Your task to perform on an android device: Go to settings Image 0: 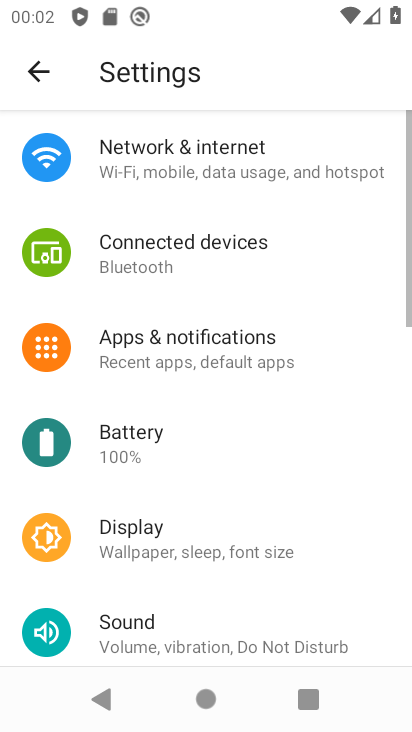
Step 0: press home button
Your task to perform on an android device: Go to settings Image 1: 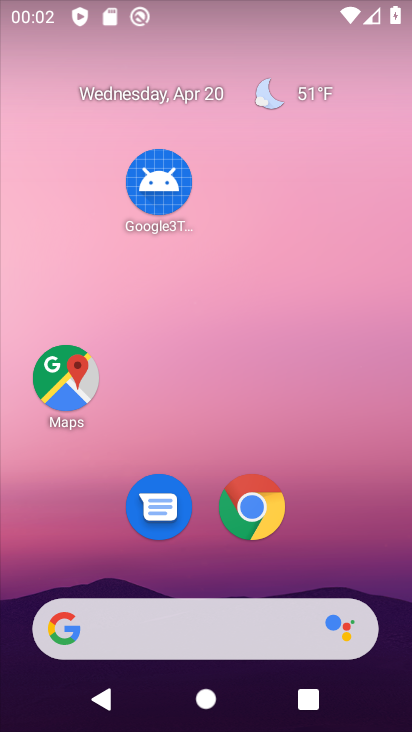
Step 1: drag from (263, 573) to (363, 12)
Your task to perform on an android device: Go to settings Image 2: 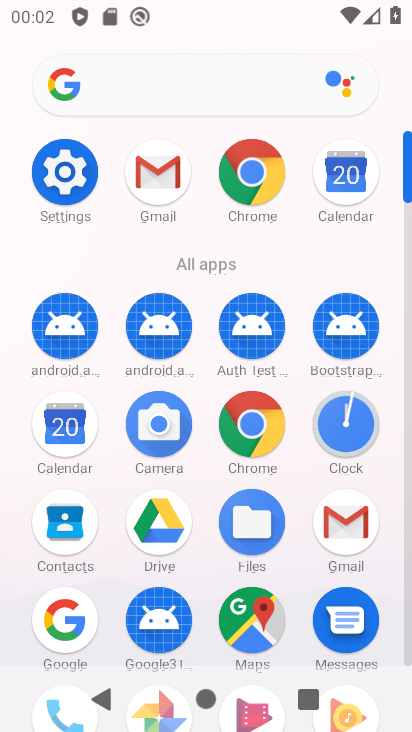
Step 2: click (59, 184)
Your task to perform on an android device: Go to settings Image 3: 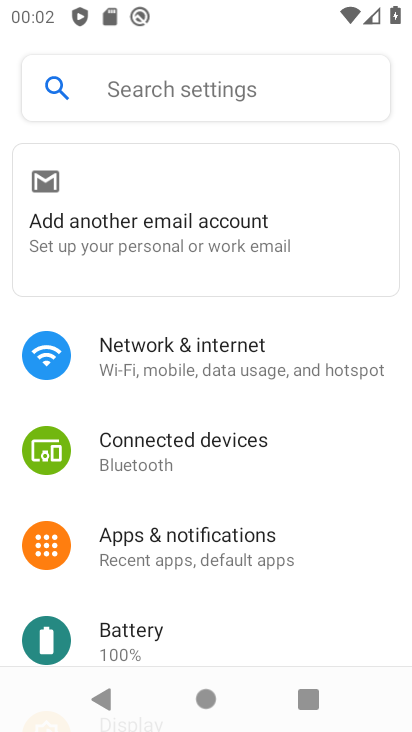
Step 3: task complete